Your task to perform on an android device: Open calendar and show me the second week of next month Image 0: 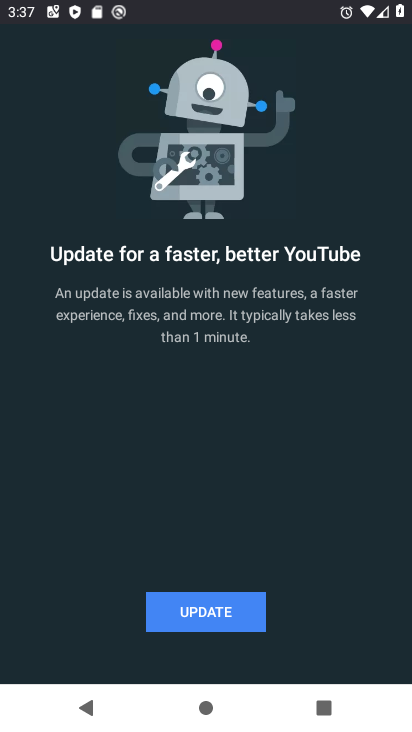
Step 0: press home button
Your task to perform on an android device: Open calendar and show me the second week of next month Image 1: 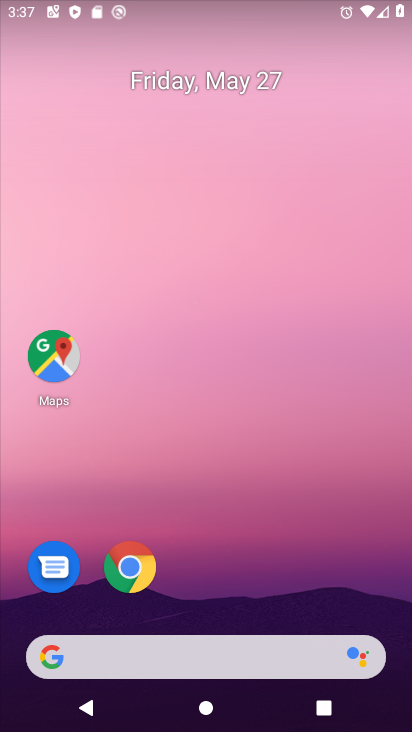
Step 1: drag from (358, 600) to (315, 39)
Your task to perform on an android device: Open calendar and show me the second week of next month Image 2: 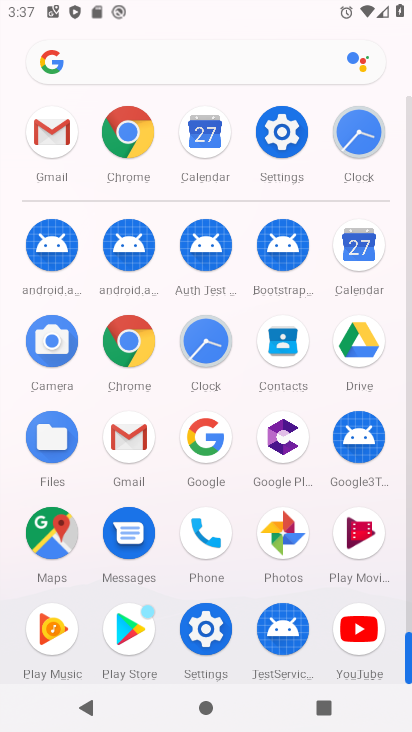
Step 2: click (357, 241)
Your task to perform on an android device: Open calendar and show me the second week of next month Image 3: 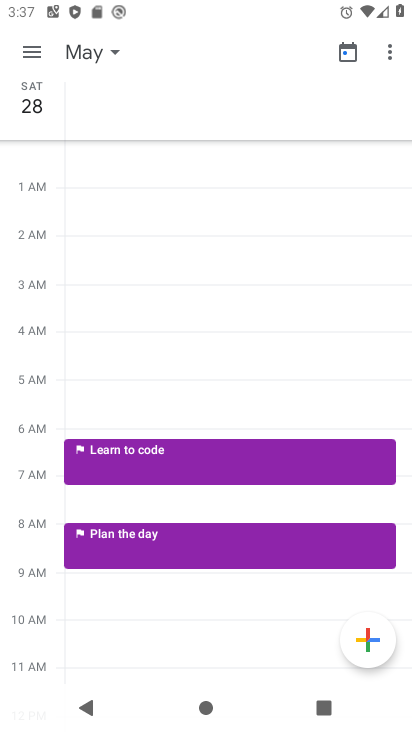
Step 3: click (29, 50)
Your task to perform on an android device: Open calendar and show me the second week of next month Image 4: 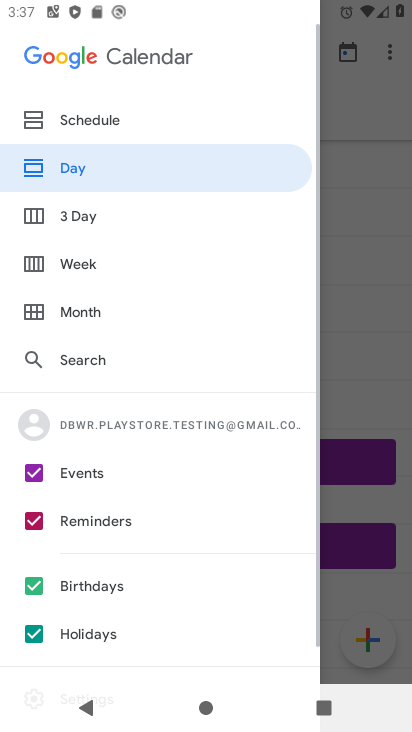
Step 4: click (88, 260)
Your task to perform on an android device: Open calendar and show me the second week of next month Image 5: 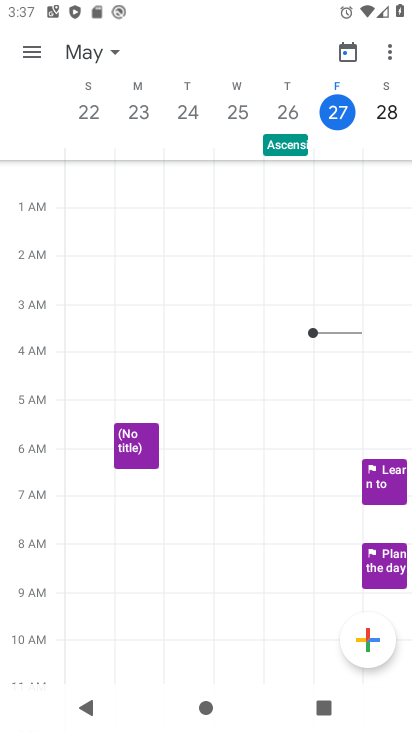
Step 5: click (111, 54)
Your task to perform on an android device: Open calendar and show me the second week of next month Image 6: 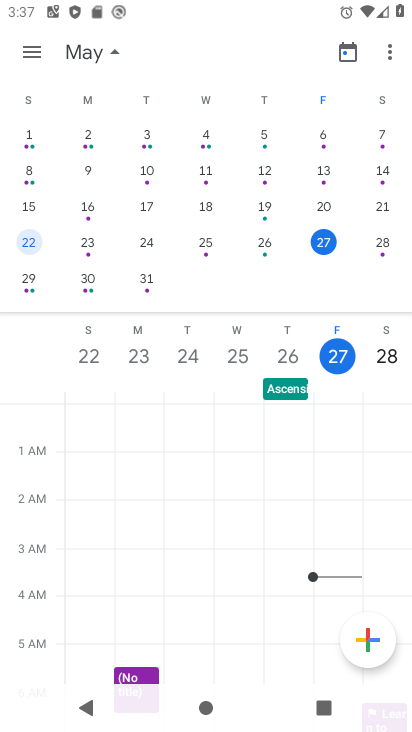
Step 6: drag from (378, 183) to (115, 215)
Your task to perform on an android device: Open calendar and show me the second week of next month Image 7: 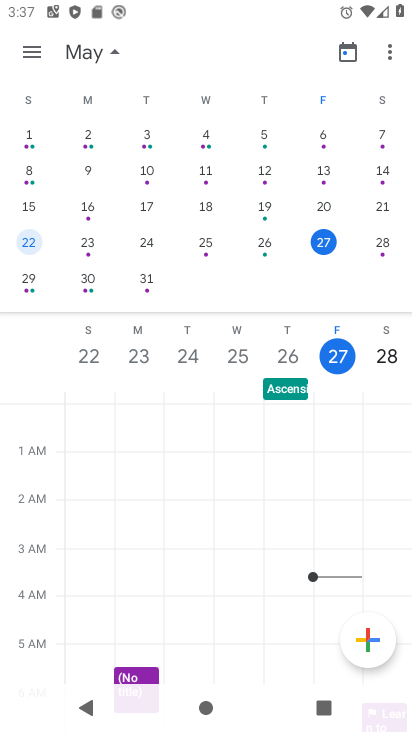
Step 7: drag from (374, 189) to (1, 204)
Your task to perform on an android device: Open calendar and show me the second week of next month Image 8: 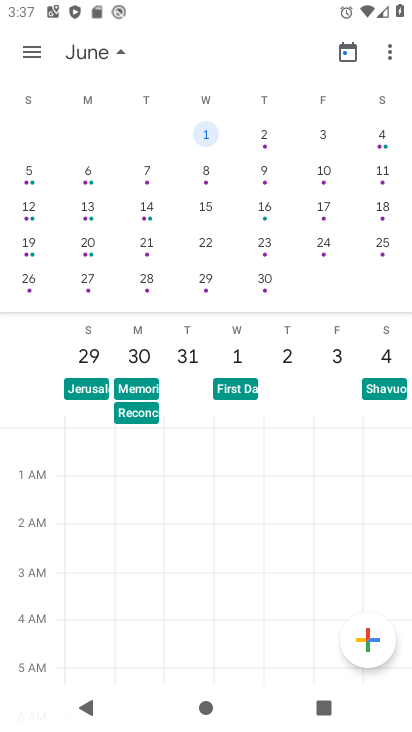
Step 8: click (26, 204)
Your task to perform on an android device: Open calendar and show me the second week of next month Image 9: 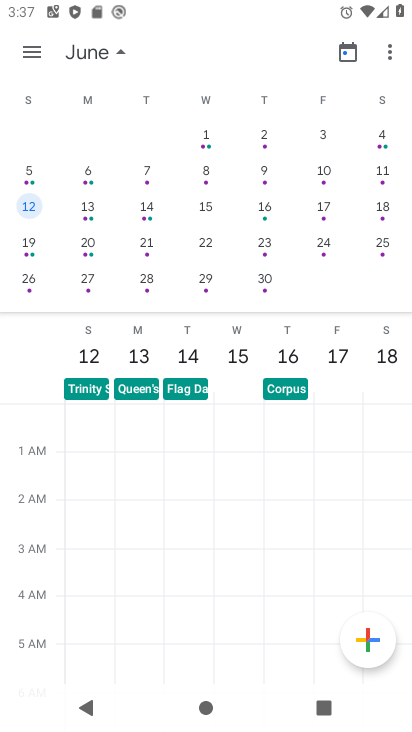
Step 9: task complete